Your task to perform on an android device: Open battery settings Image 0: 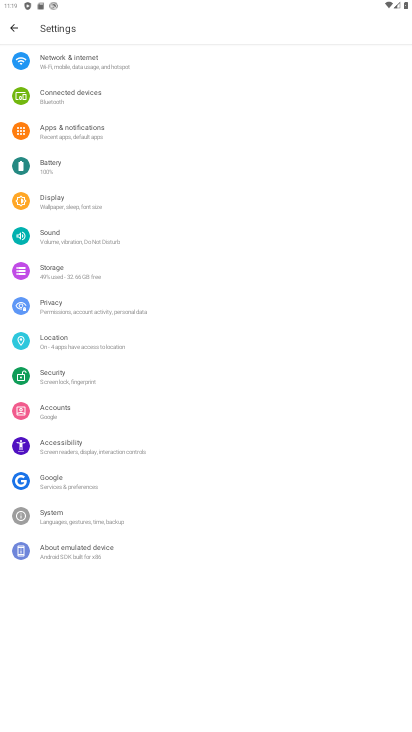
Step 0: press home button
Your task to perform on an android device: Open battery settings Image 1: 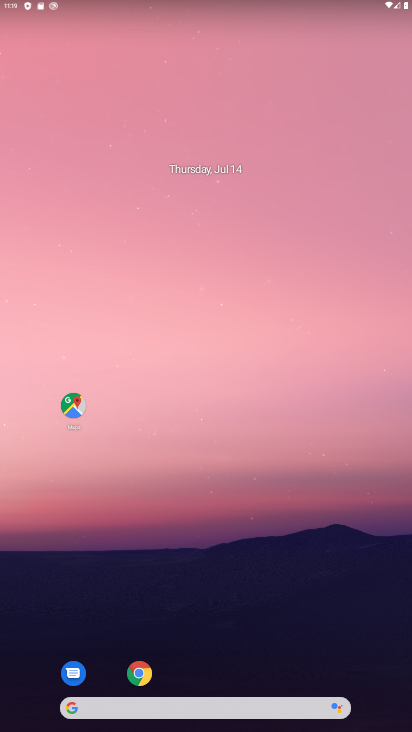
Step 1: drag from (305, 642) to (224, 1)
Your task to perform on an android device: Open battery settings Image 2: 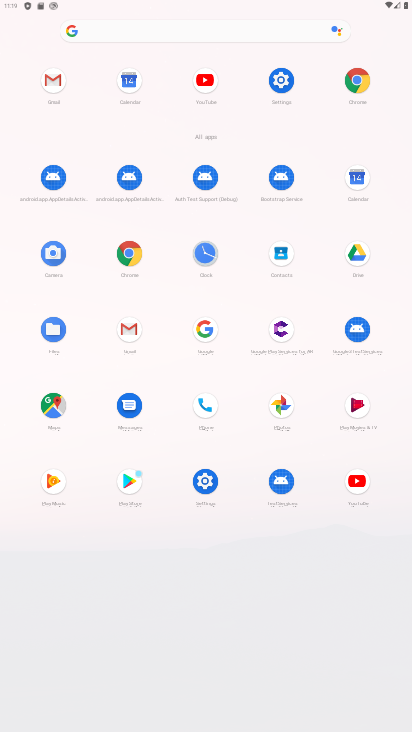
Step 2: click (284, 108)
Your task to perform on an android device: Open battery settings Image 3: 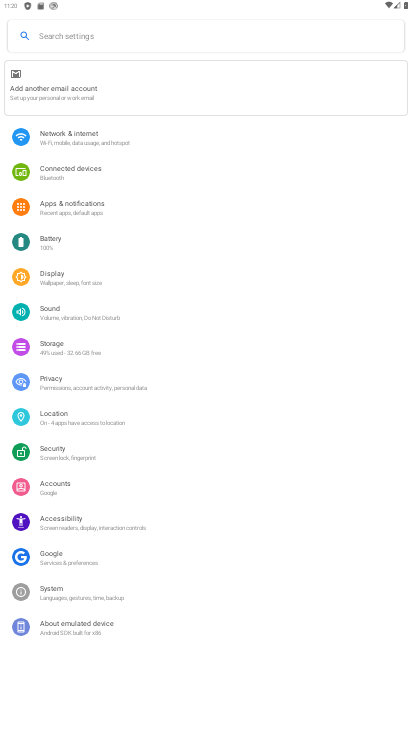
Step 3: click (56, 237)
Your task to perform on an android device: Open battery settings Image 4: 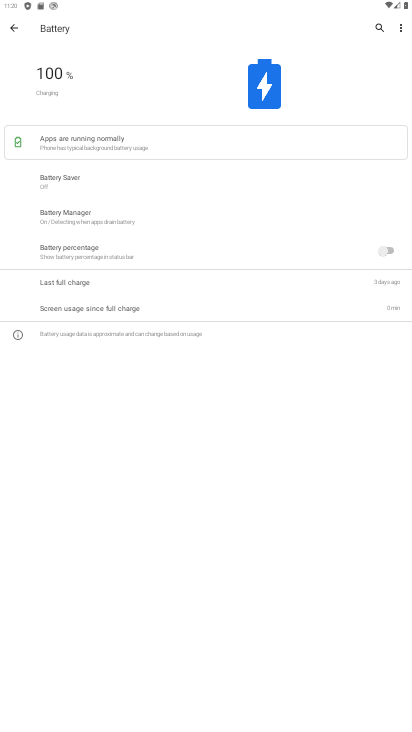
Step 4: task complete